Your task to perform on an android device: Is it going to rain this weekend? Image 0: 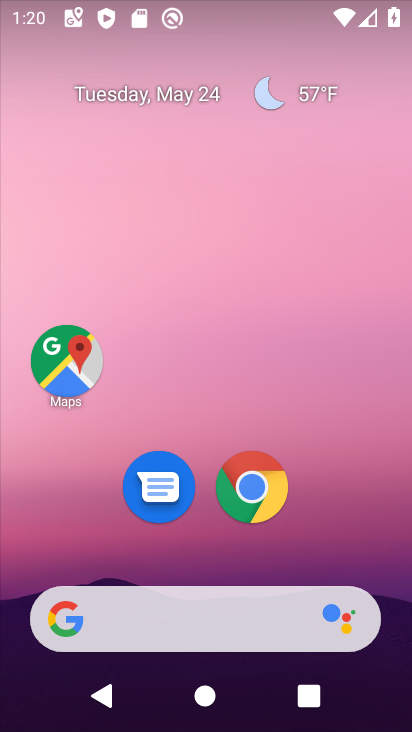
Step 0: drag from (232, 710) to (231, 152)
Your task to perform on an android device: Is it going to rain this weekend? Image 1: 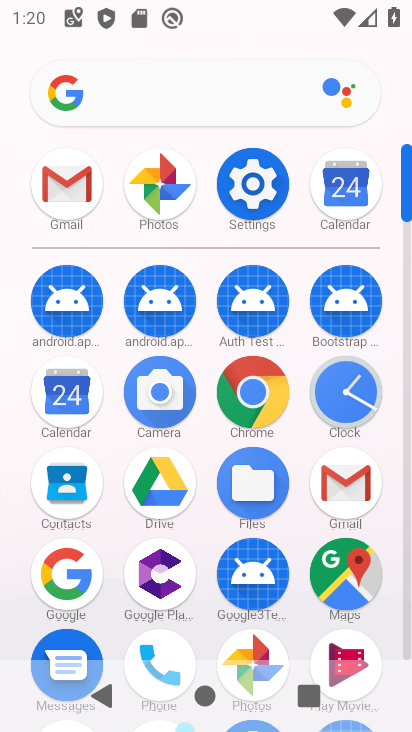
Step 1: click (71, 576)
Your task to perform on an android device: Is it going to rain this weekend? Image 2: 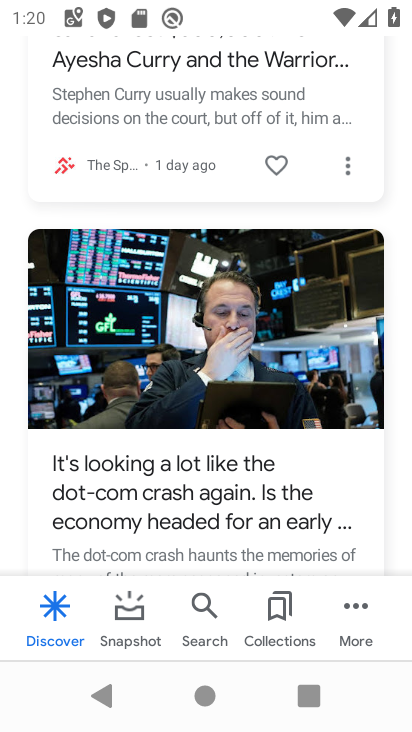
Step 2: drag from (308, 113) to (358, 466)
Your task to perform on an android device: Is it going to rain this weekend? Image 3: 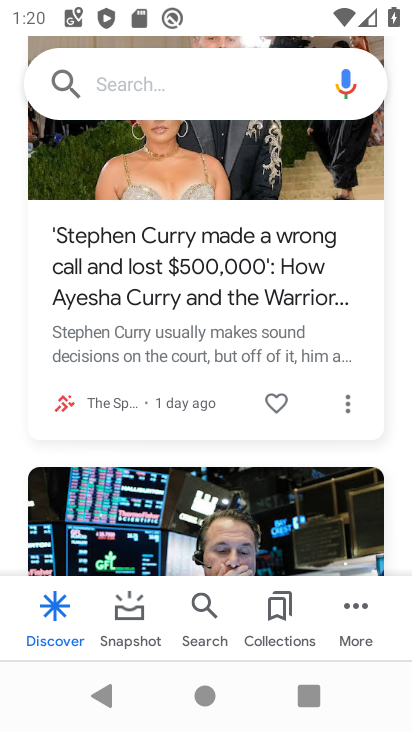
Step 3: drag from (308, 148) to (348, 614)
Your task to perform on an android device: Is it going to rain this weekend? Image 4: 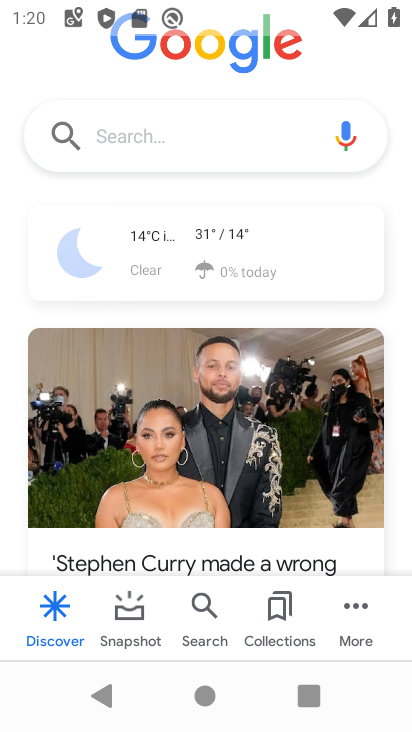
Step 4: click (172, 231)
Your task to perform on an android device: Is it going to rain this weekend? Image 5: 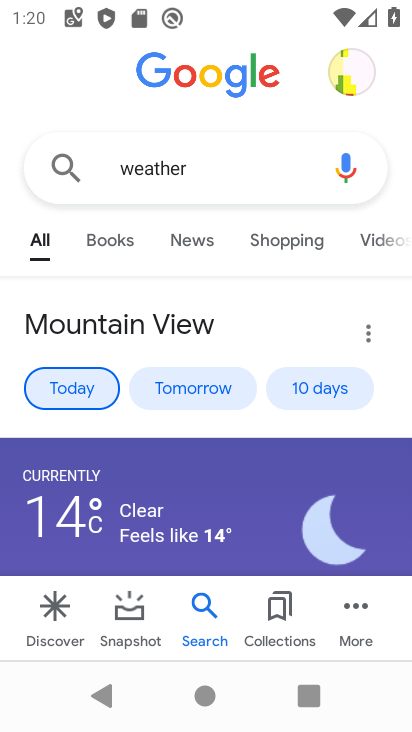
Step 5: click (70, 394)
Your task to perform on an android device: Is it going to rain this weekend? Image 6: 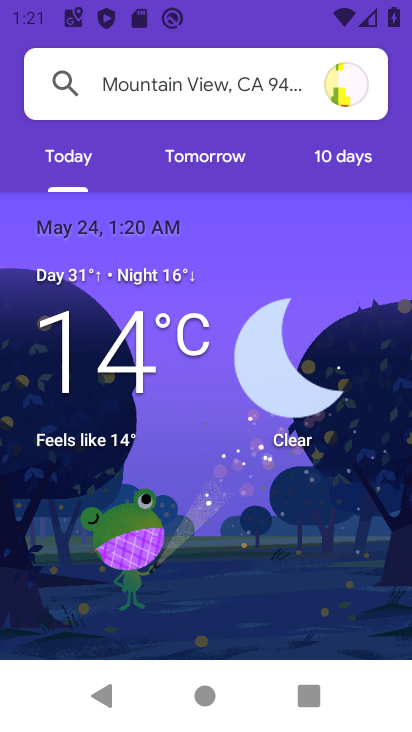
Step 6: click (341, 155)
Your task to perform on an android device: Is it going to rain this weekend? Image 7: 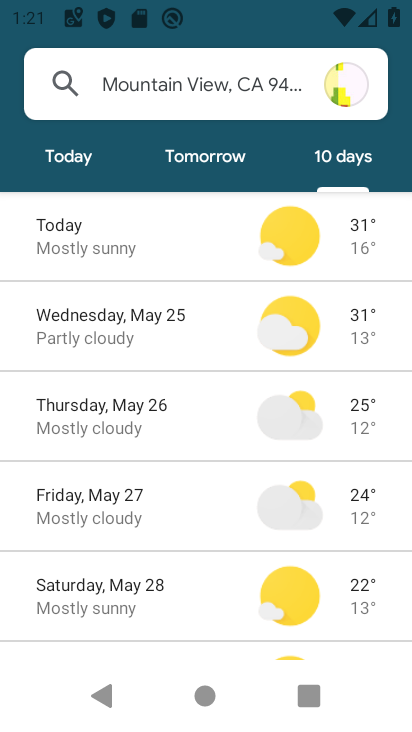
Step 7: click (106, 604)
Your task to perform on an android device: Is it going to rain this weekend? Image 8: 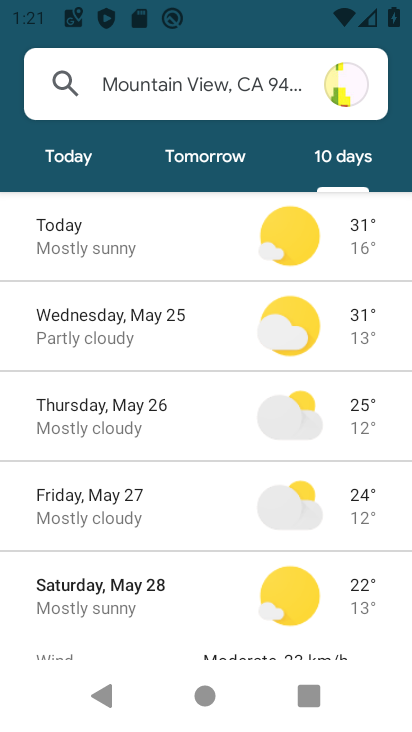
Step 8: task complete